Your task to perform on an android device: open the mobile data screen to see how much data has been used Image 0: 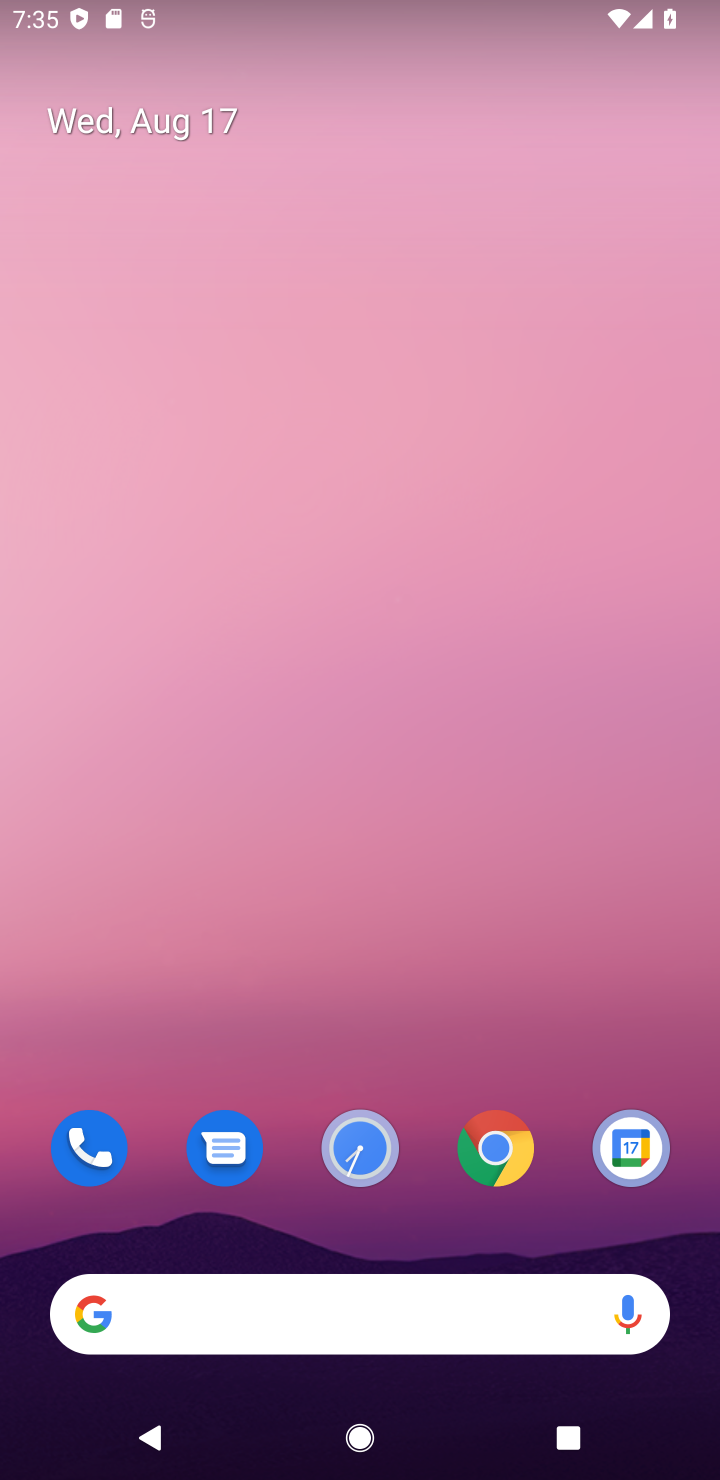
Step 0: drag from (567, 1229) to (566, 369)
Your task to perform on an android device: open the mobile data screen to see how much data has been used Image 1: 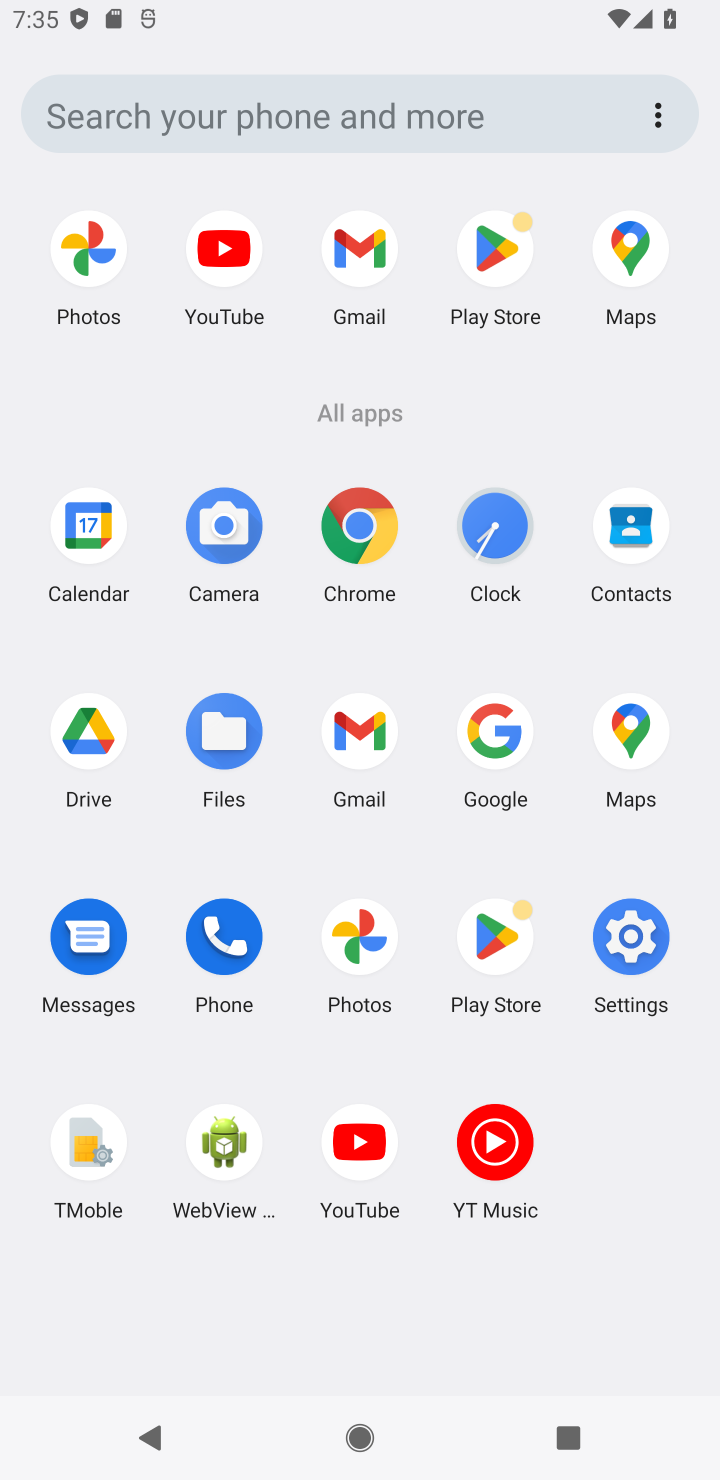
Step 1: click (636, 937)
Your task to perform on an android device: open the mobile data screen to see how much data has been used Image 2: 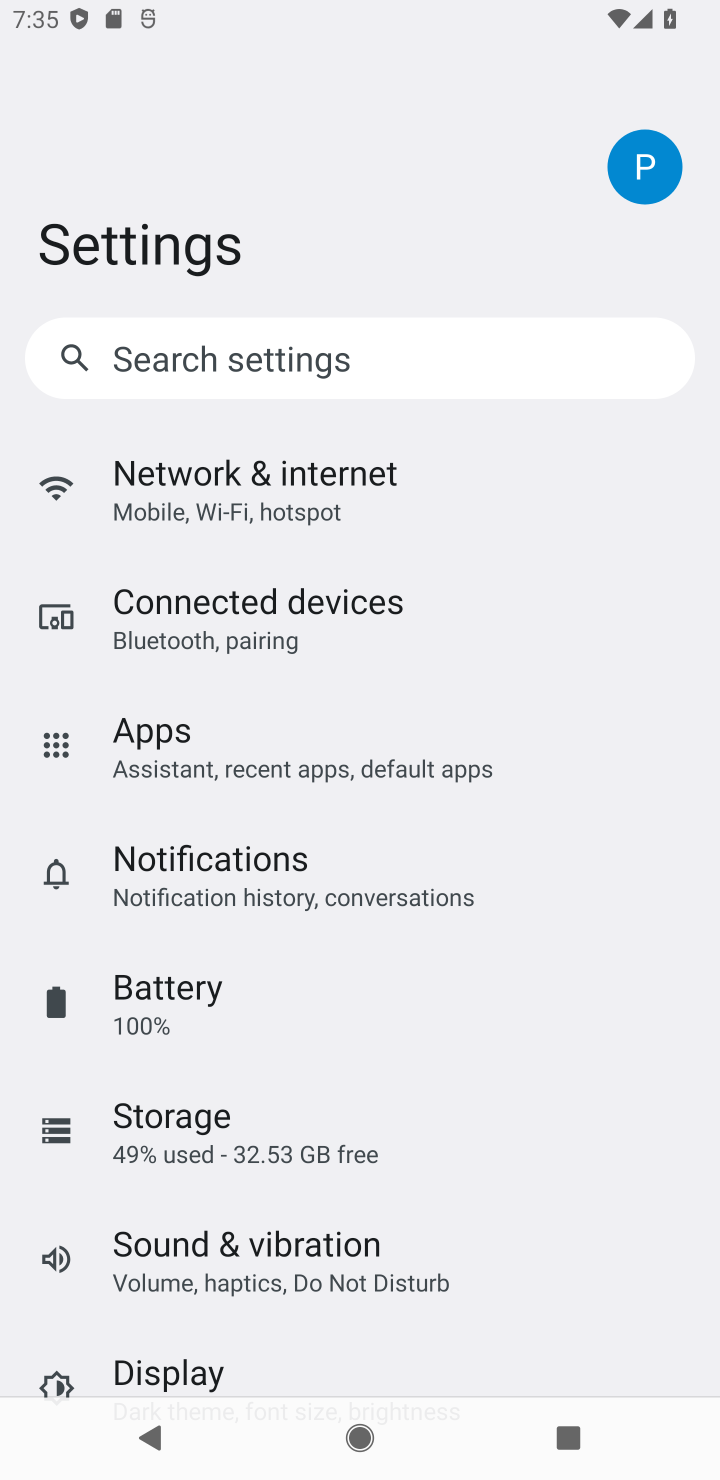
Step 2: click (240, 471)
Your task to perform on an android device: open the mobile data screen to see how much data has been used Image 3: 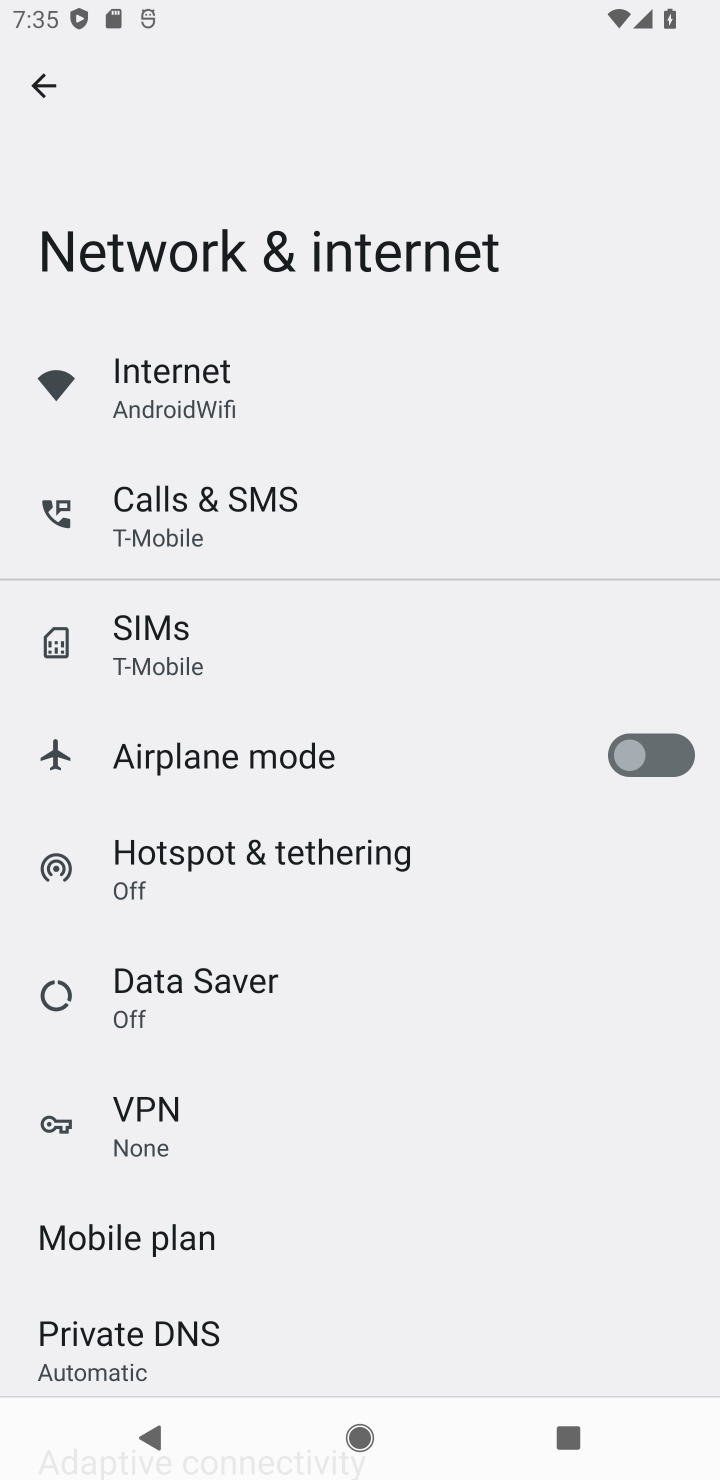
Step 3: click (215, 362)
Your task to perform on an android device: open the mobile data screen to see how much data has been used Image 4: 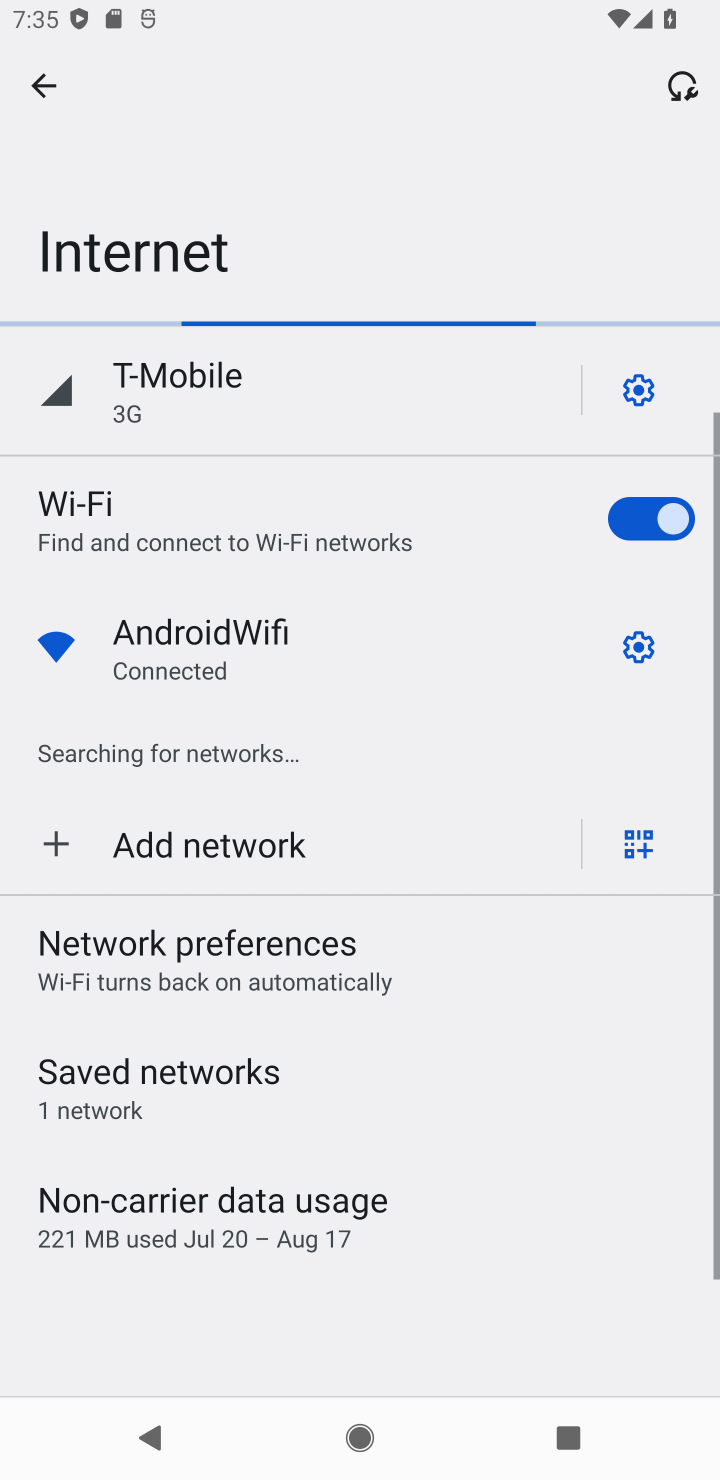
Step 4: click (644, 388)
Your task to perform on an android device: open the mobile data screen to see how much data has been used Image 5: 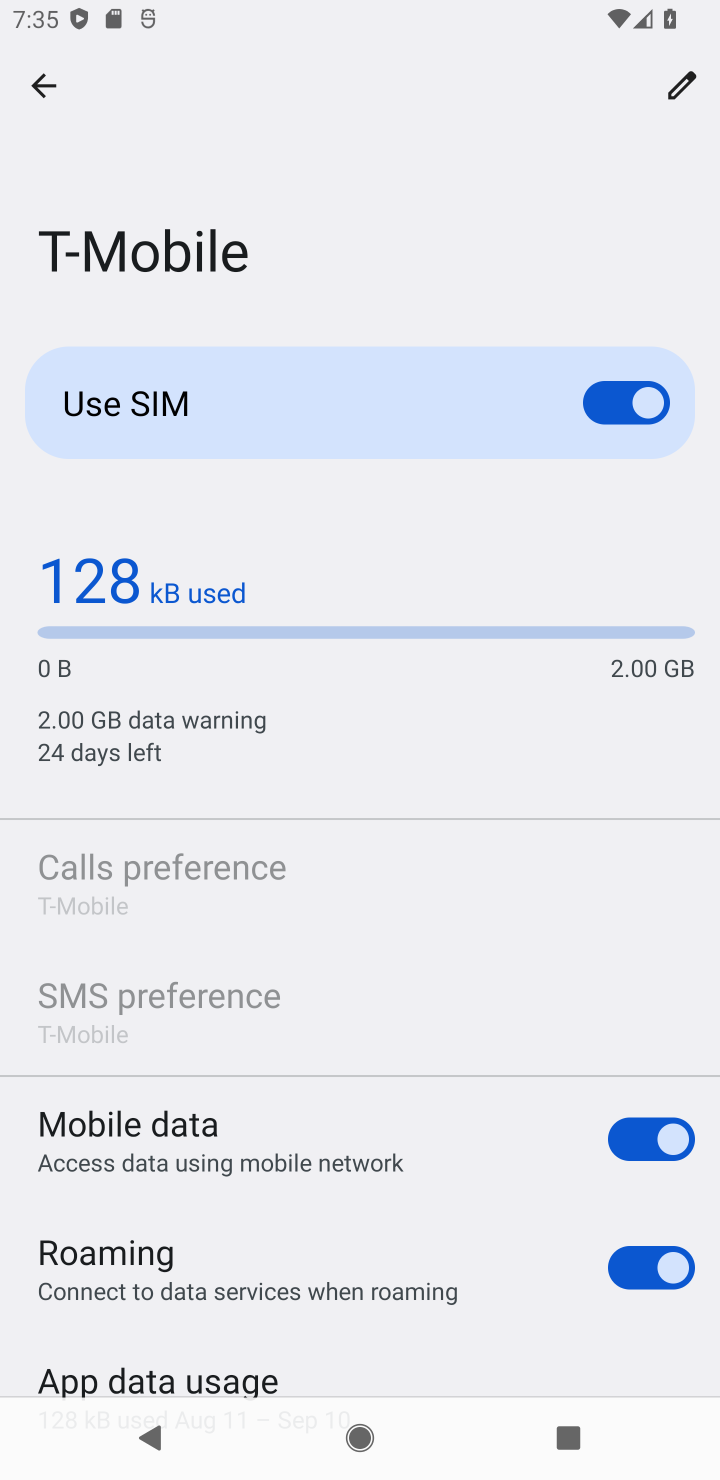
Step 5: task complete